Your task to perform on an android device: Open notification settings Image 0: 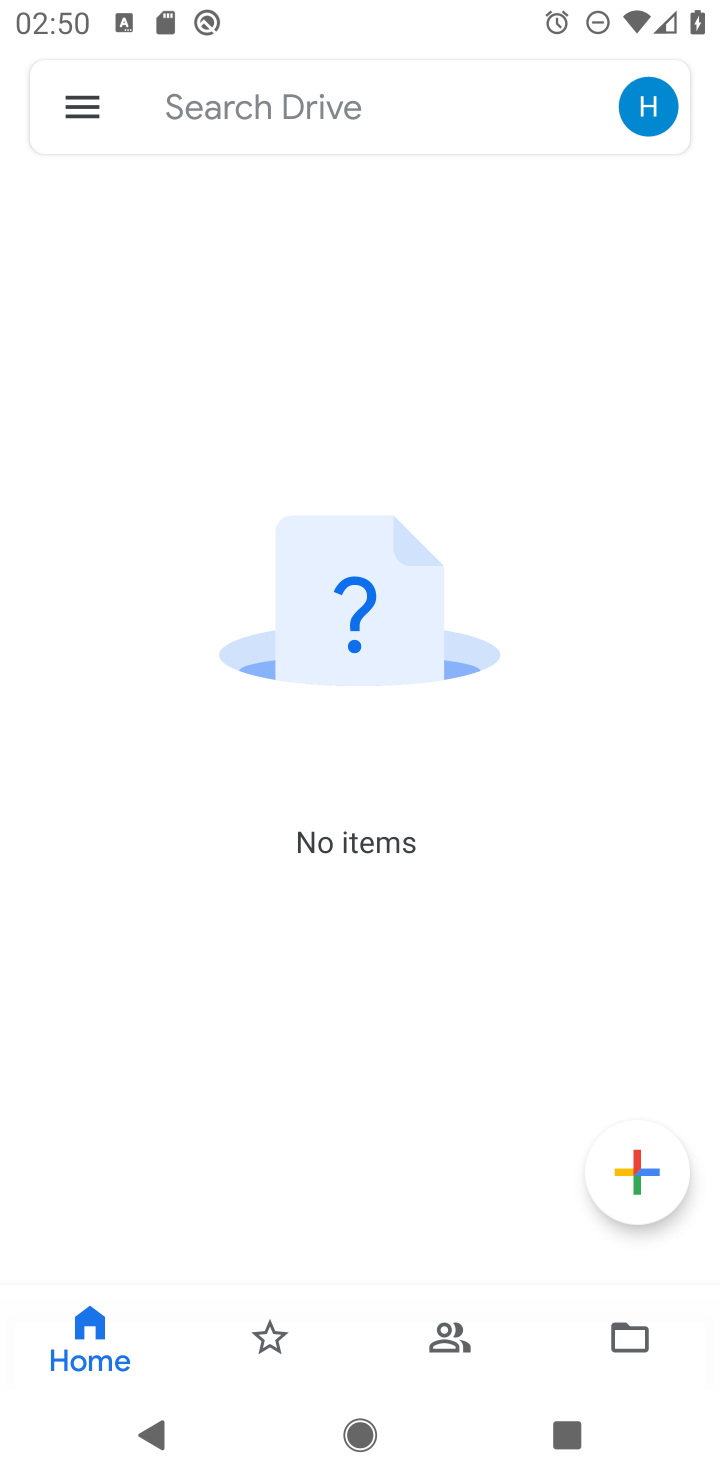
Step 0: press home button
Your task to perform on an android device: Open notification settings Image 1: 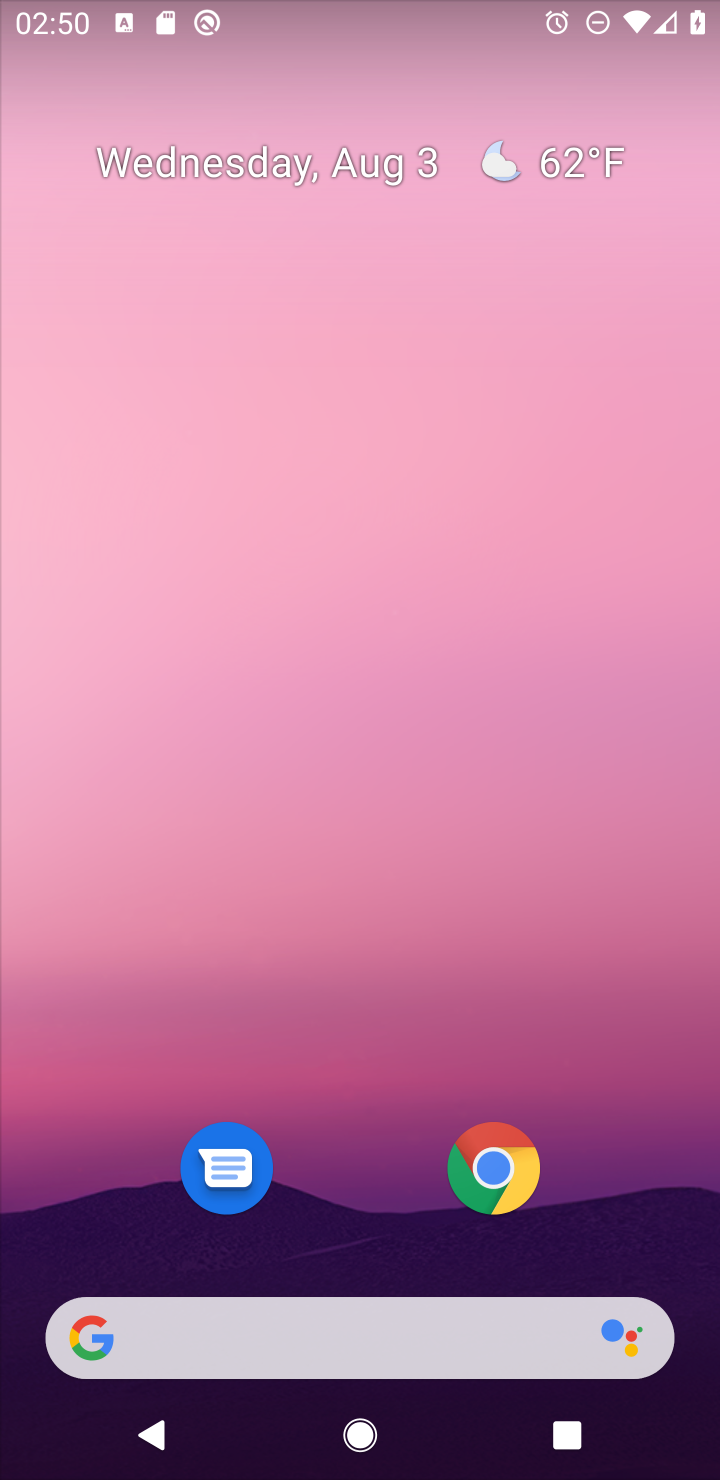
Step 1: drag from (666, 1253) to (586, 336)
Your task to perform on an android device: Open notification settings Image 2: 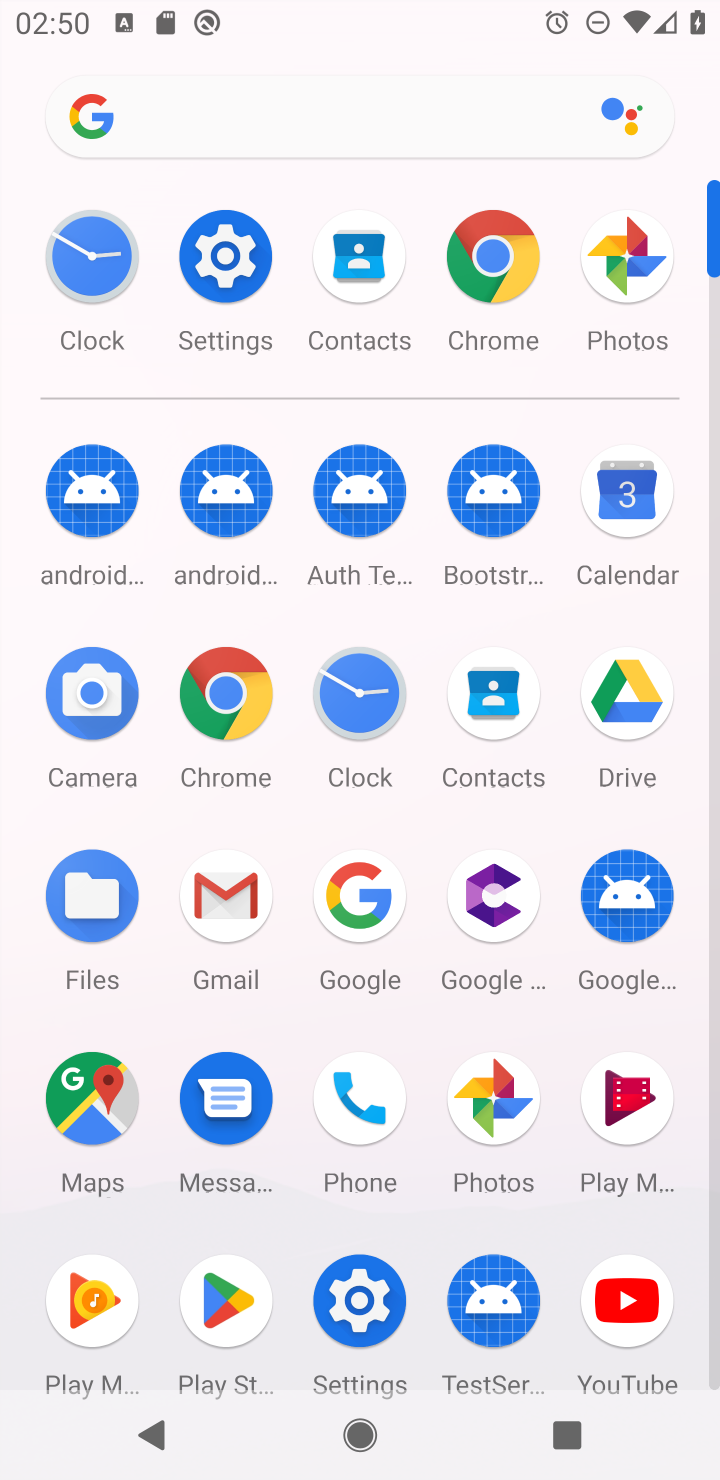
Step 2: click (359, 1306)
Your task to perform on an android device: Open notification settings Image 3: 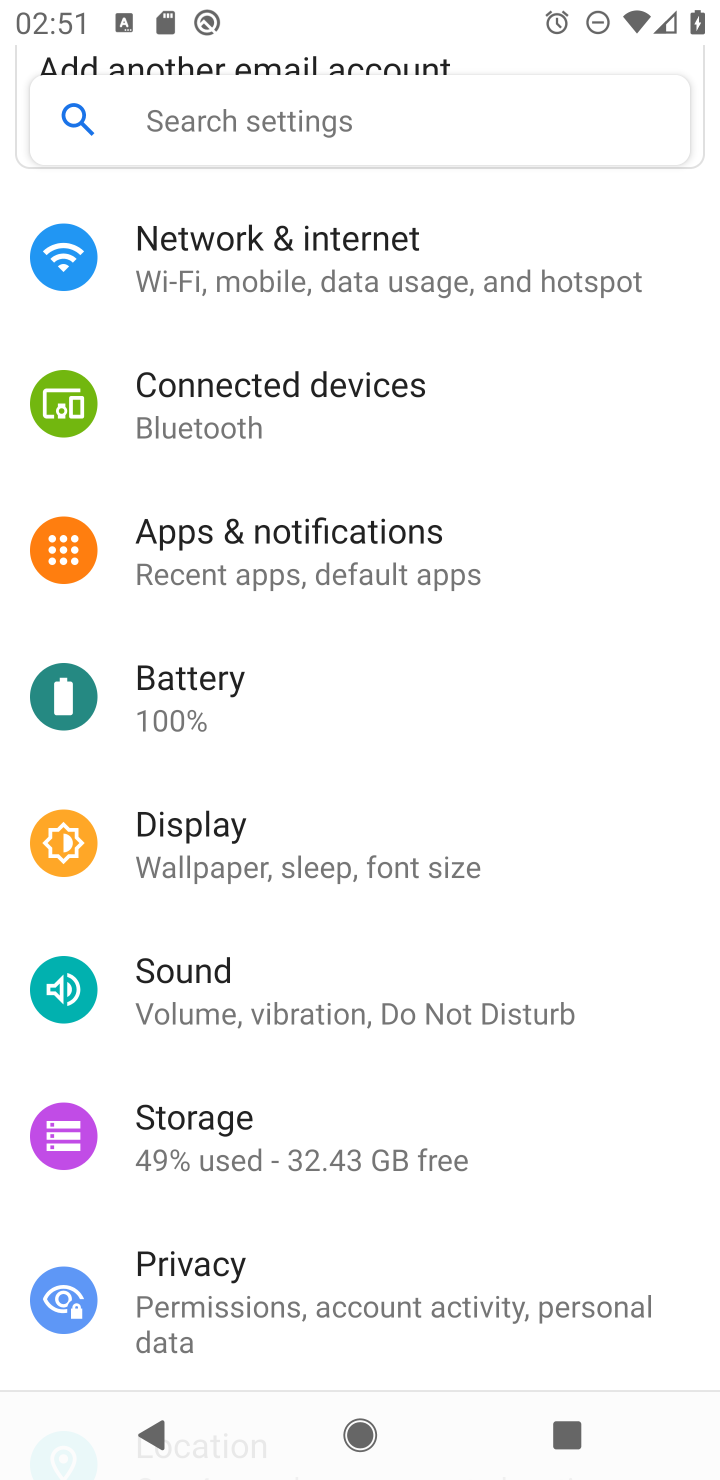
Step 3: click (269, 543)
Your task to perform on an android device: Open notification settings Image 4: 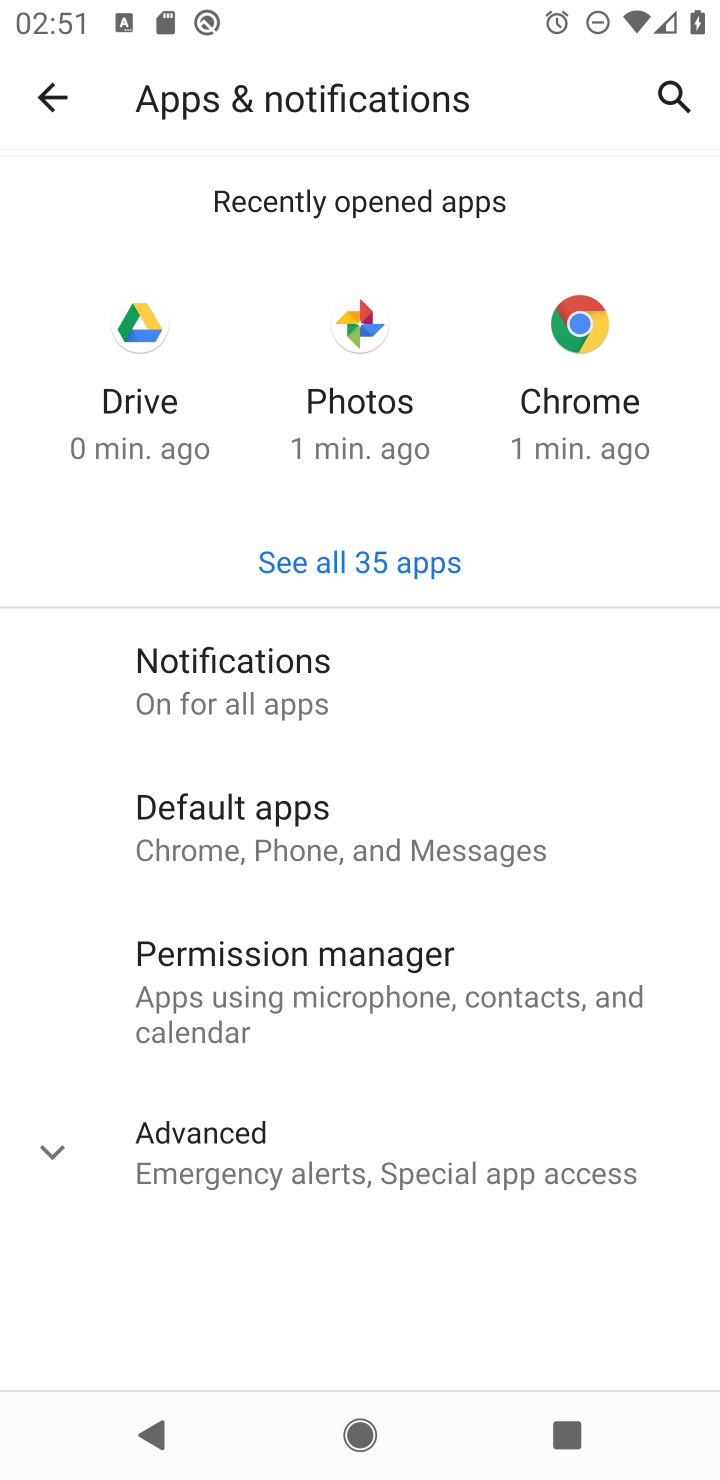
Step 4: click (234, 679)
Your task to perform on an android device: Open notification settings Image 5: 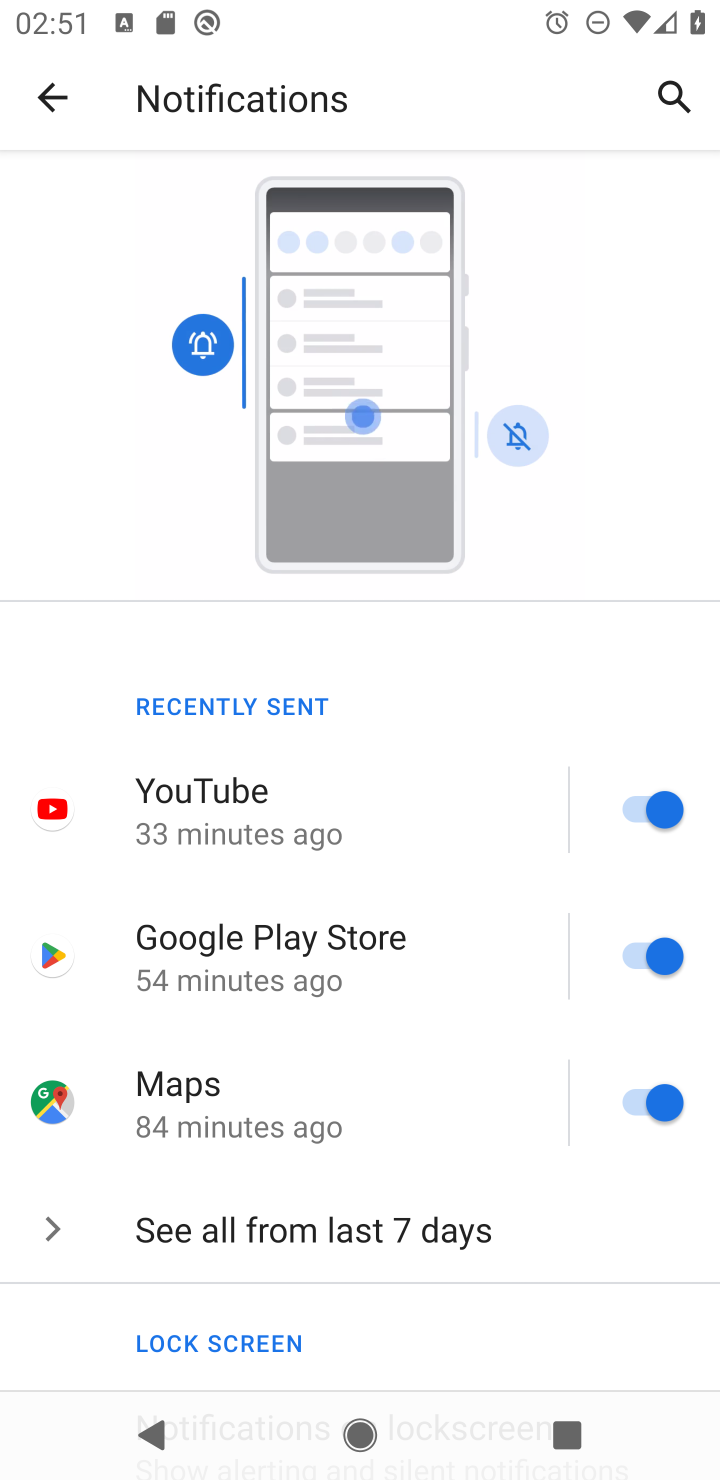
Step 5: drag from (546, 1227) to (582, 465)
Your task to perform on an android device: Open notification settings Image 6: 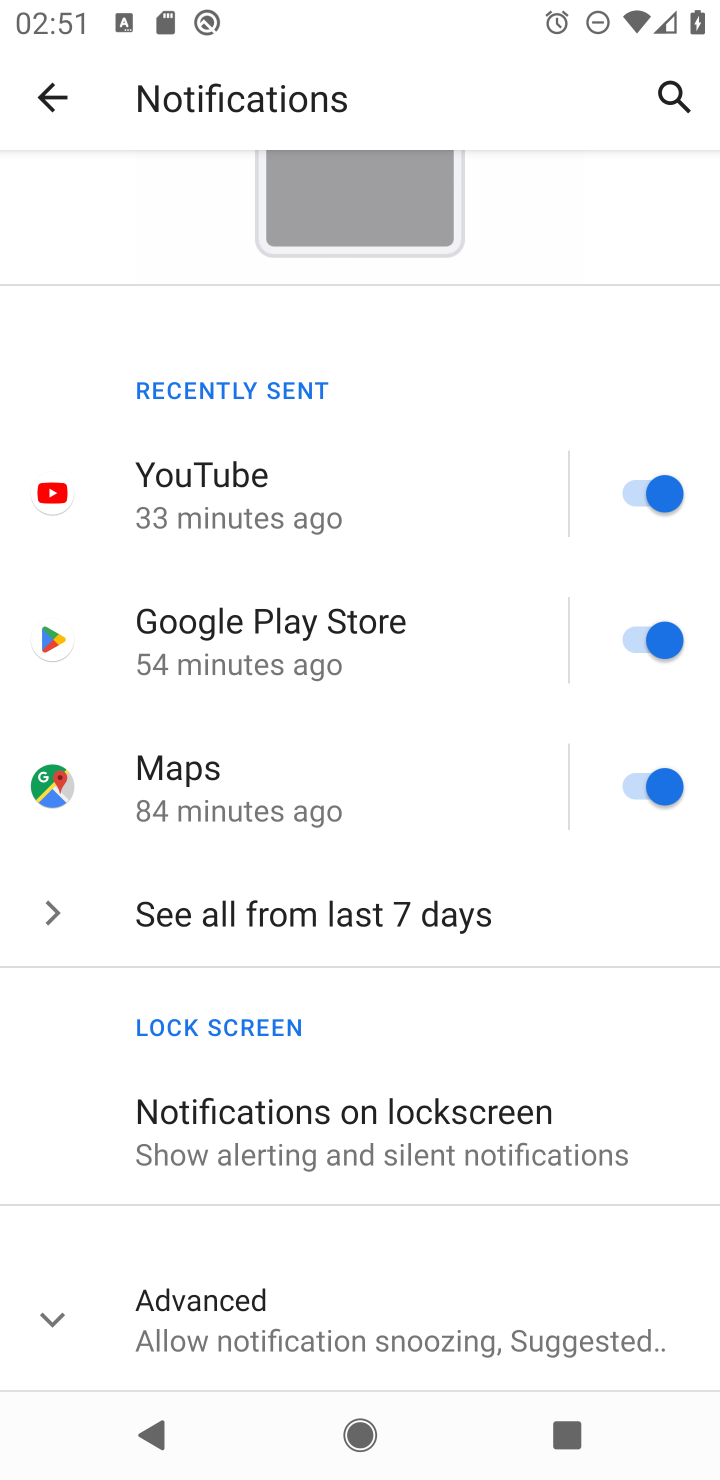
Step 6: click (47, 1313)
Your task to perform on an android device: Open notification settings Image 7: 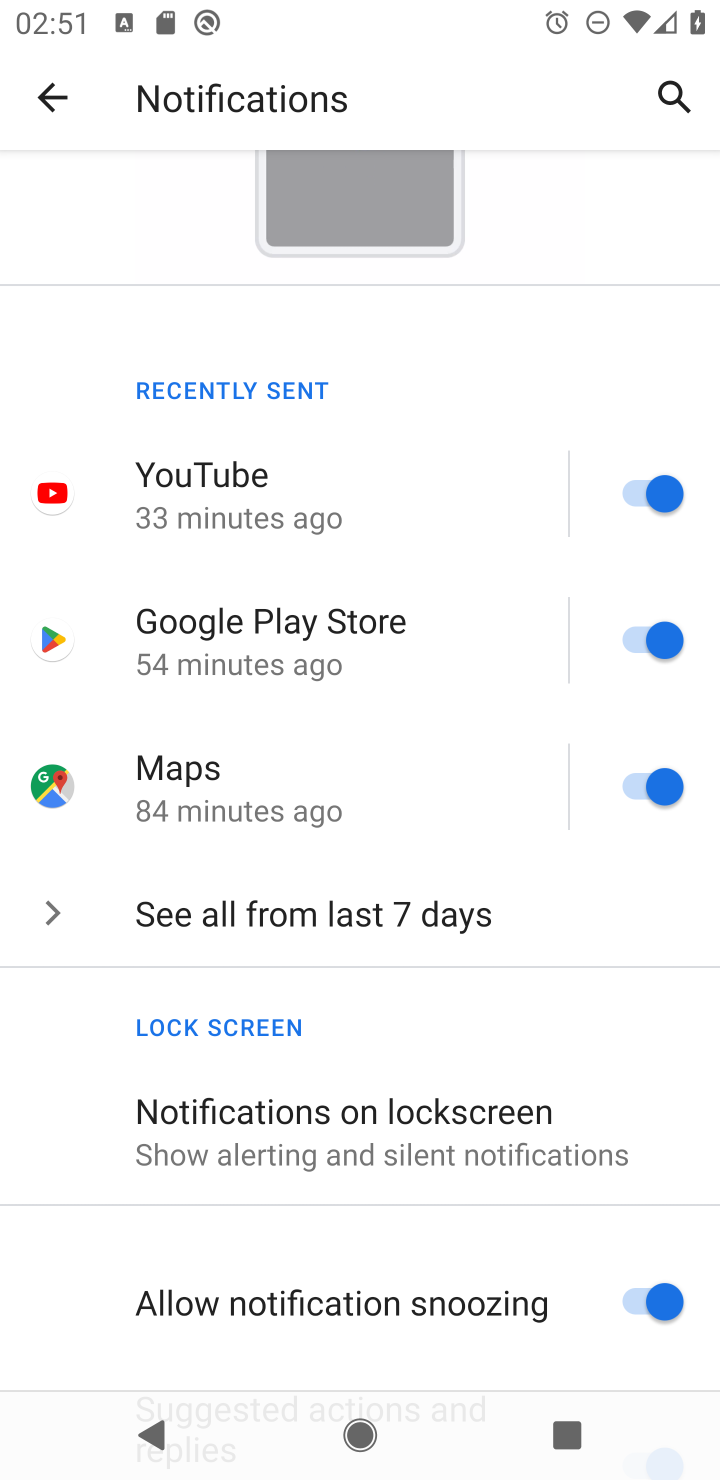
Step 7: task complete